Your task to perform on an android device: turn off improve location accuracy Image 0: 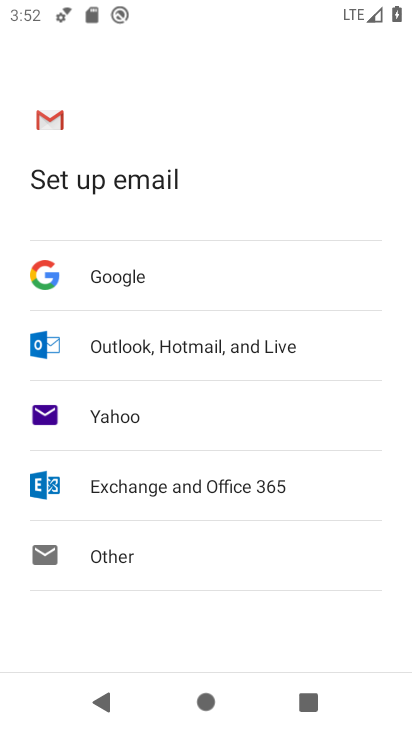
Step 0: press home button
Your task to perform on an android device: turn off improve location accuracy Image 1: 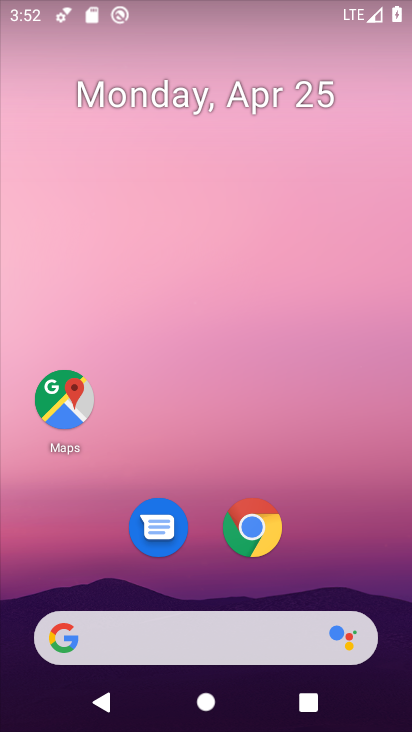
Step 1: drag from (393, 624) to (334, 85)
Your task to perform on an android device: turn off improve location accuracy Image 2: 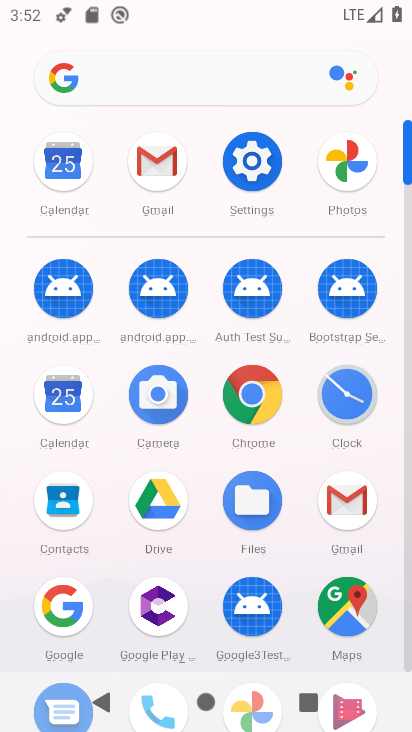
Step 2: click (408, 654)
Your task to perform on an android device: turn off improve location accuracy Image 3: 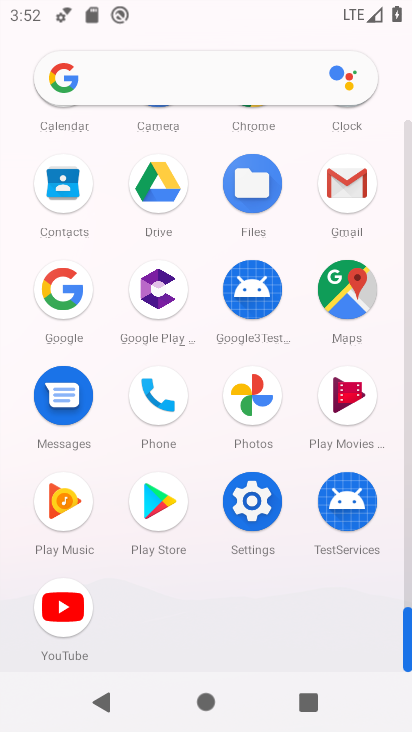
Step 3: click (249, 500)
Your task to perform on an android device: turn off improve location accuracy Image 4: 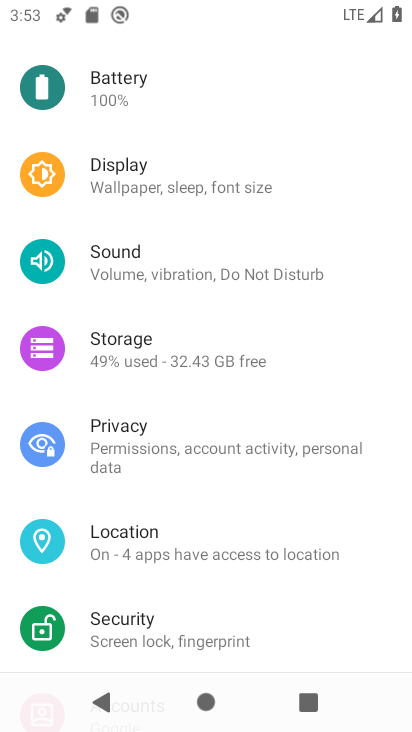
Step 4: click (132, 540)
Your task to perform on an android device: turn off improve location accuracy Image 5: 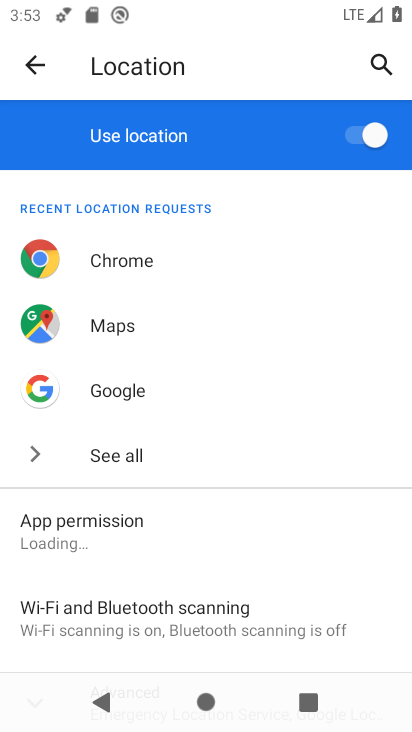
Step 5: drag from (252, 607) to (273, 227)
Your task to perform on an android device: turn off improve location accuracy Image 6: 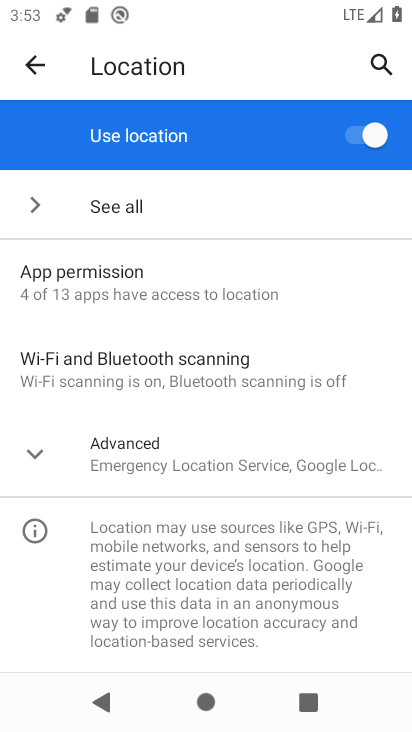
Step 6: click (32, 447)
Your task to perform on an android device: turn off improve location accuracy Image 7: 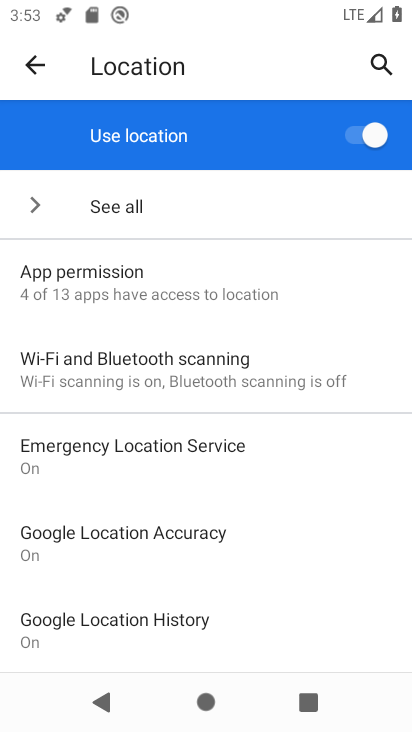
Step 7: drag from (285, 591) to (295, 378)
Your task to perform on an android device: turn off improve location accuracy Image 8: 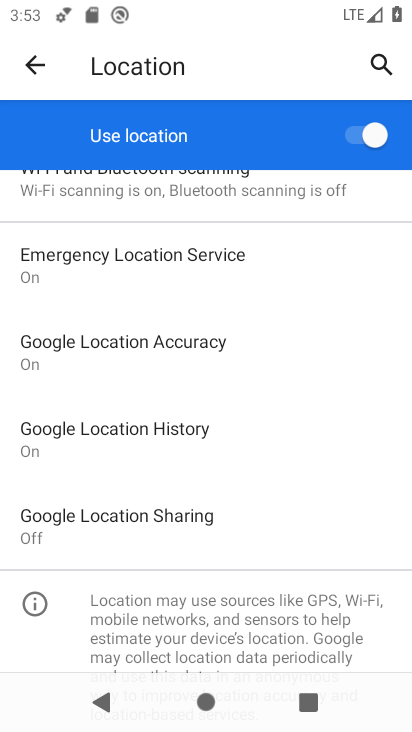
Step 8: click (54, 337)
Your task to perform on an android device: turn off improve location accuracy Image 9: 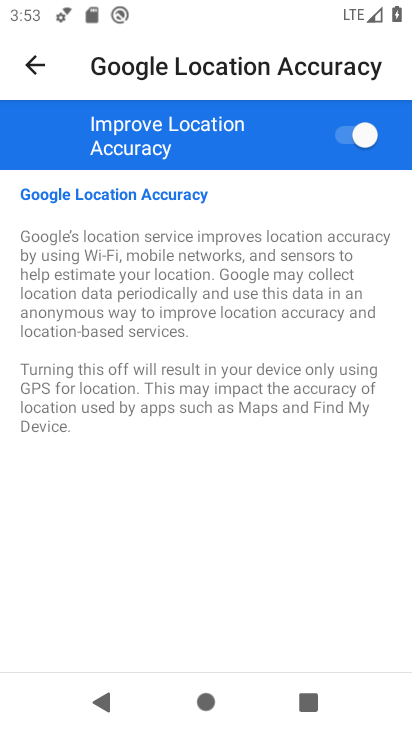
Step 9: click (340, 132)
Your task to perform on an android device: turn off improve location accuracy Image 10: 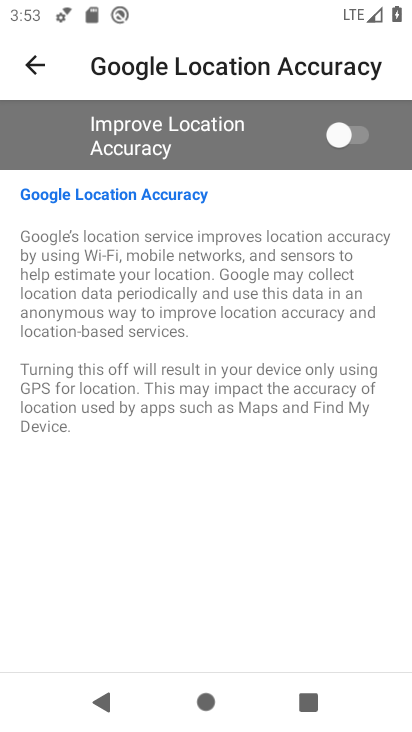
Step 10: task complete